Your task to perform on an android device: toggle show notifications on the lock screen Image 0: 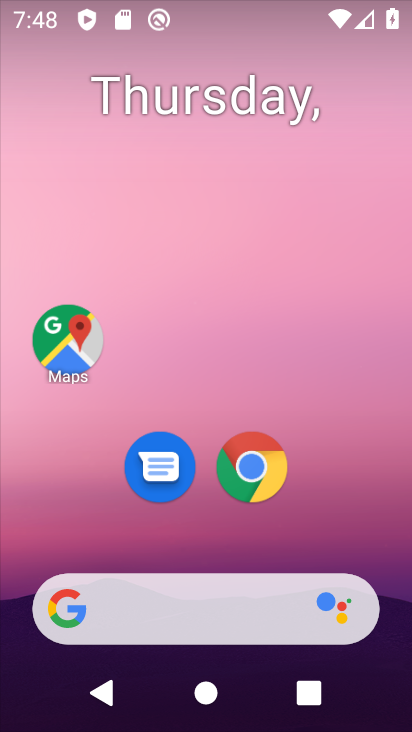
Step 0: drag from (200, 540) to (247, 129)
Your task to perform on an android device: toggle show notifications on the lock screen Image 1: 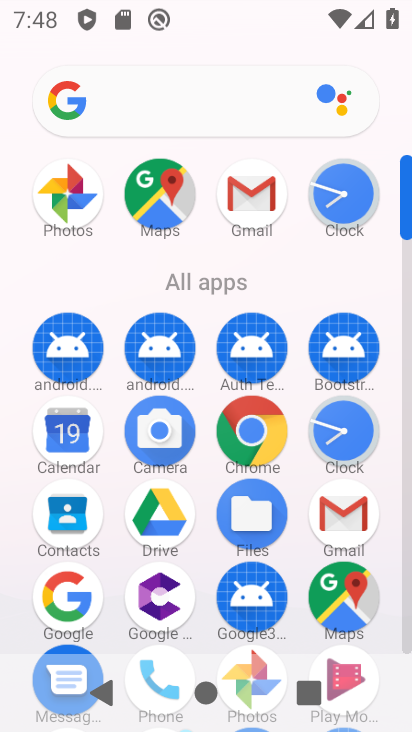
Step 1: drag from (217, 576) to (334, 117)
Your task to perform on an android device: toggle show notifications on the lock screen Image 2: 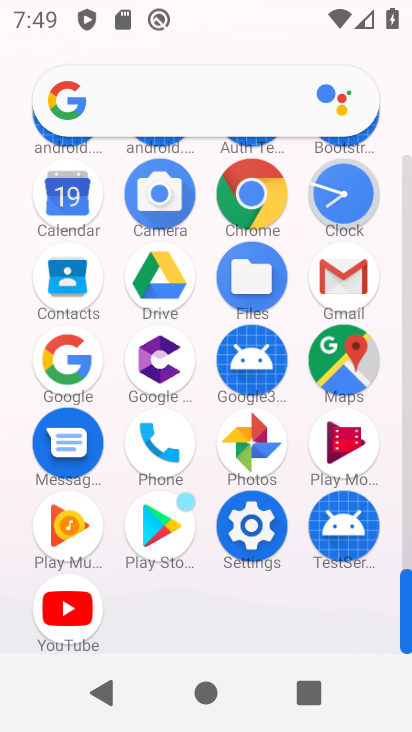
Step 2: click (255, 519)
Your task to perform on an android device: toggle show notifications on the lock screen Image 3: 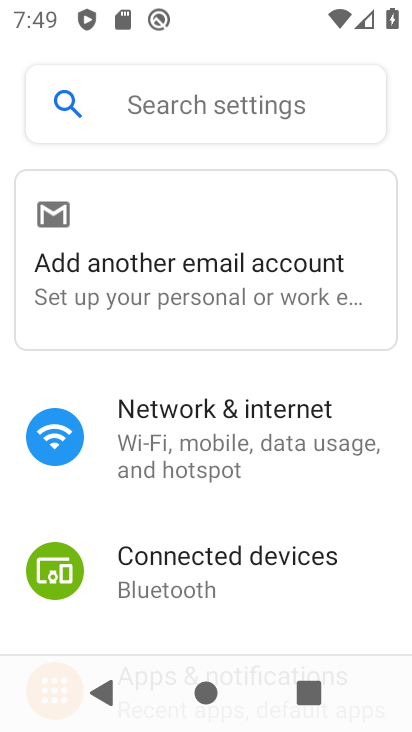
Step 3: drag from (165, 561) to (279, 95)
Your task to perform on an android device: toggle show notifications on the lock screen Image 4: 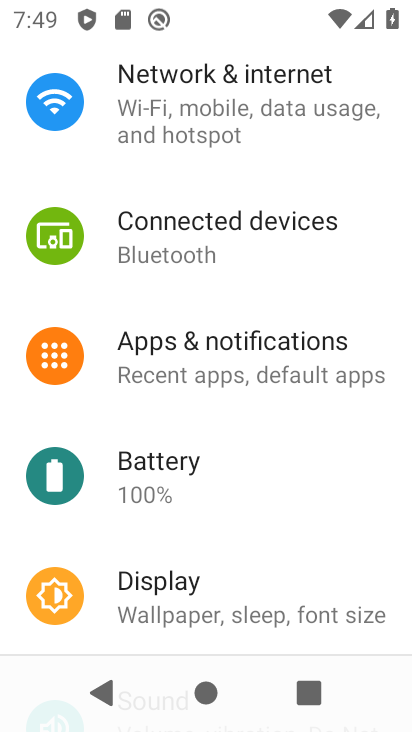
Step 4: click (214, 362)
Your task to perform on an android device: toggle show notifications on the lock screen Image 5: 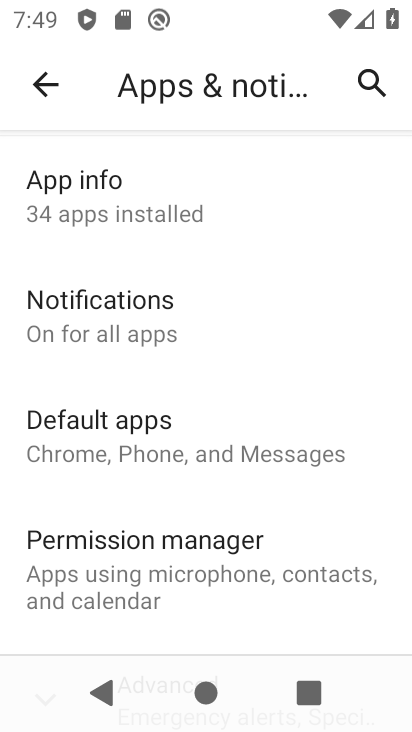
Step 5: click (216, 306)
Your task to perform on an android device: toggle show notifications on the lock screen Image 6: 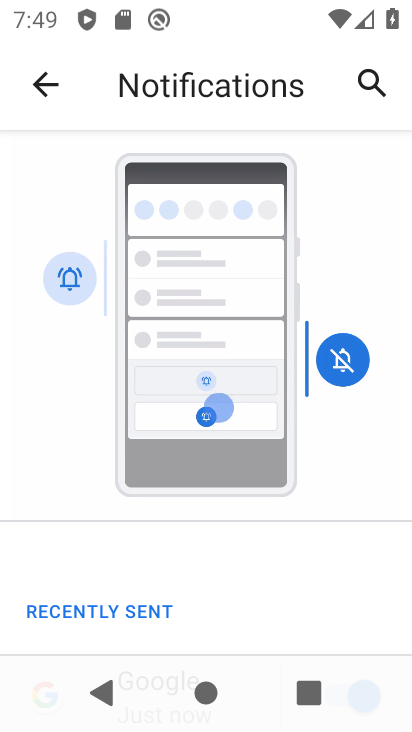
Step 6: drag from (198, 616) to (311, 116)
Your task to perform on an android device: toggle show notifications on the lock screen Image 7: 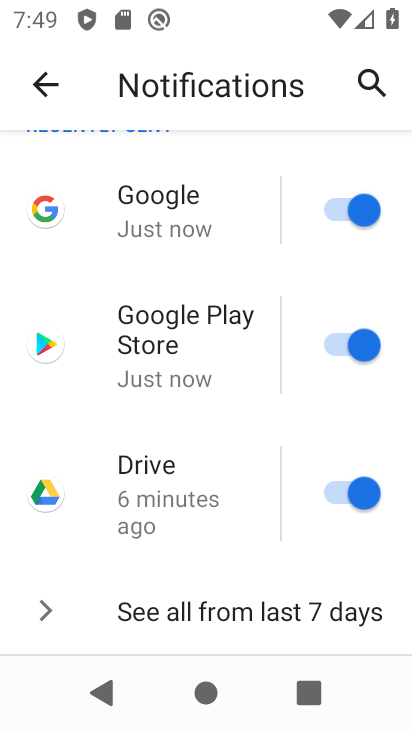
Step 7: drag from (187, 569) to (255, 175)
Your task to perform on an android device: toggle show notifications on the lock screen Image 8: 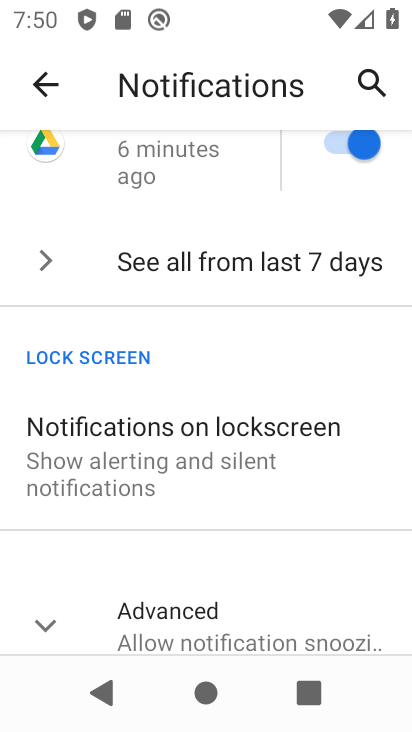
Step 8: click (163, 471)
Your task to perform on an android device: toggle show notifications on the lock screen Image 9: 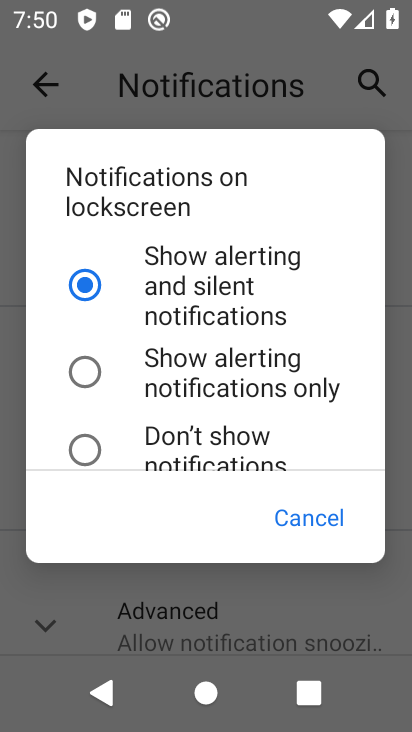
Step 9: click (81, 279)
Your task to perform on an android device: toggle show notifications on the lock screen Image 10: 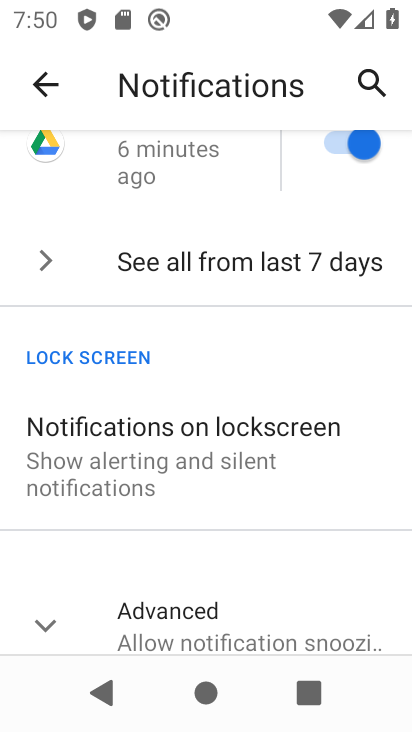
Step 10: task complete